Your task to perform on an android device: turn on priority inbox in the gmail app Image 0: 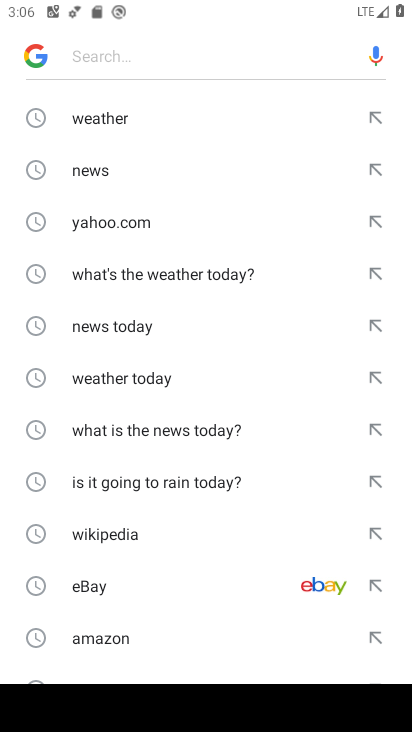
Step 0: press home button
Your task to perform on an android device: turn on priority inbox in the gmail app Image 1: 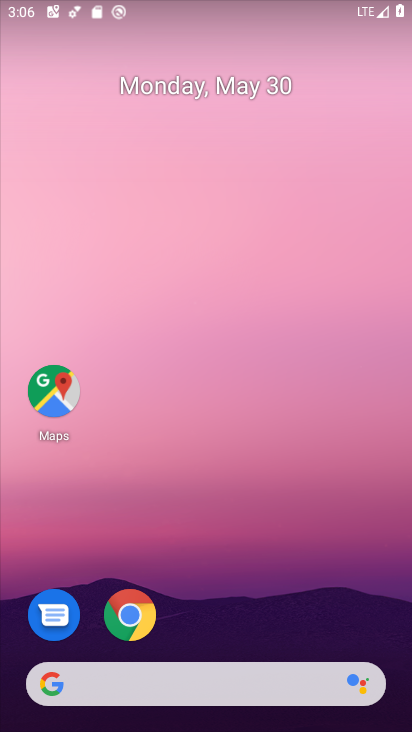
Step 1: drag from (240, 560) to (231, 70)
Your task to perform on an android device: turn on priority inbox in the gmail app Image 2: 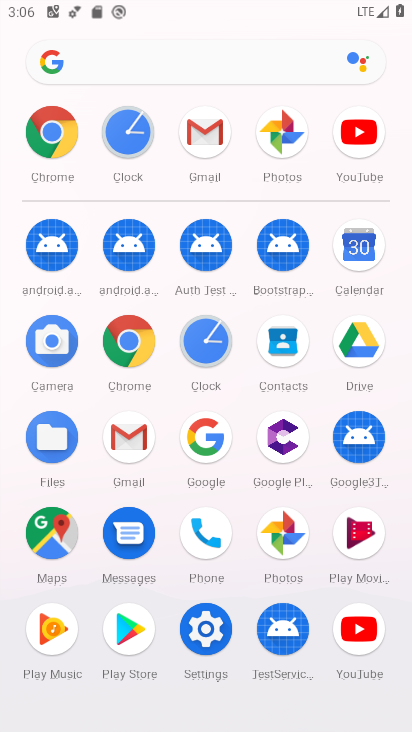
Step 2: click (200, 130)
Your task to perform on an android device: turn on priority inbox in the gmail app Image 3: 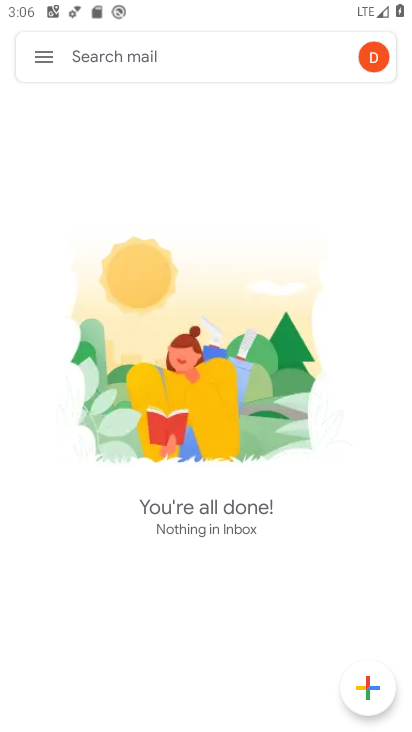
Step 3: click (45, 53)
Your task to perform on an android device: turn on priority inbox in the gmail app Image 4: 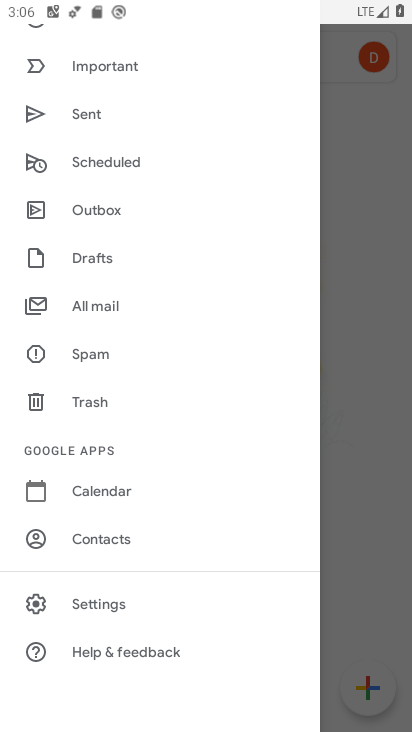
Step 4: click (125, 604)
Your task to perform on an android device: turn on priority inbox in the gmail app Image 5: 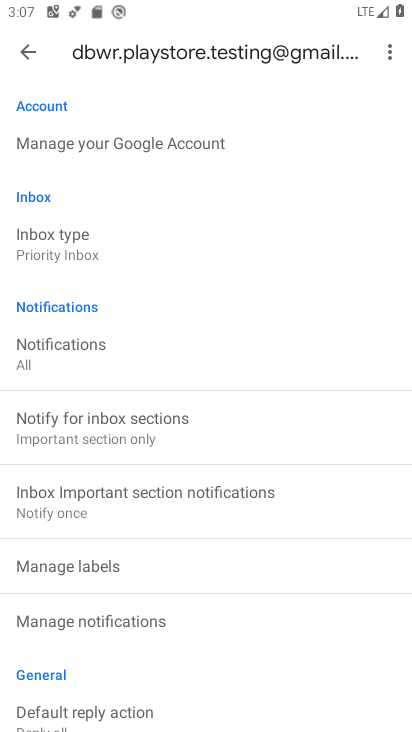
Step 5: task complete